Your task to perform on an android device: Open Google Maps Image 0: 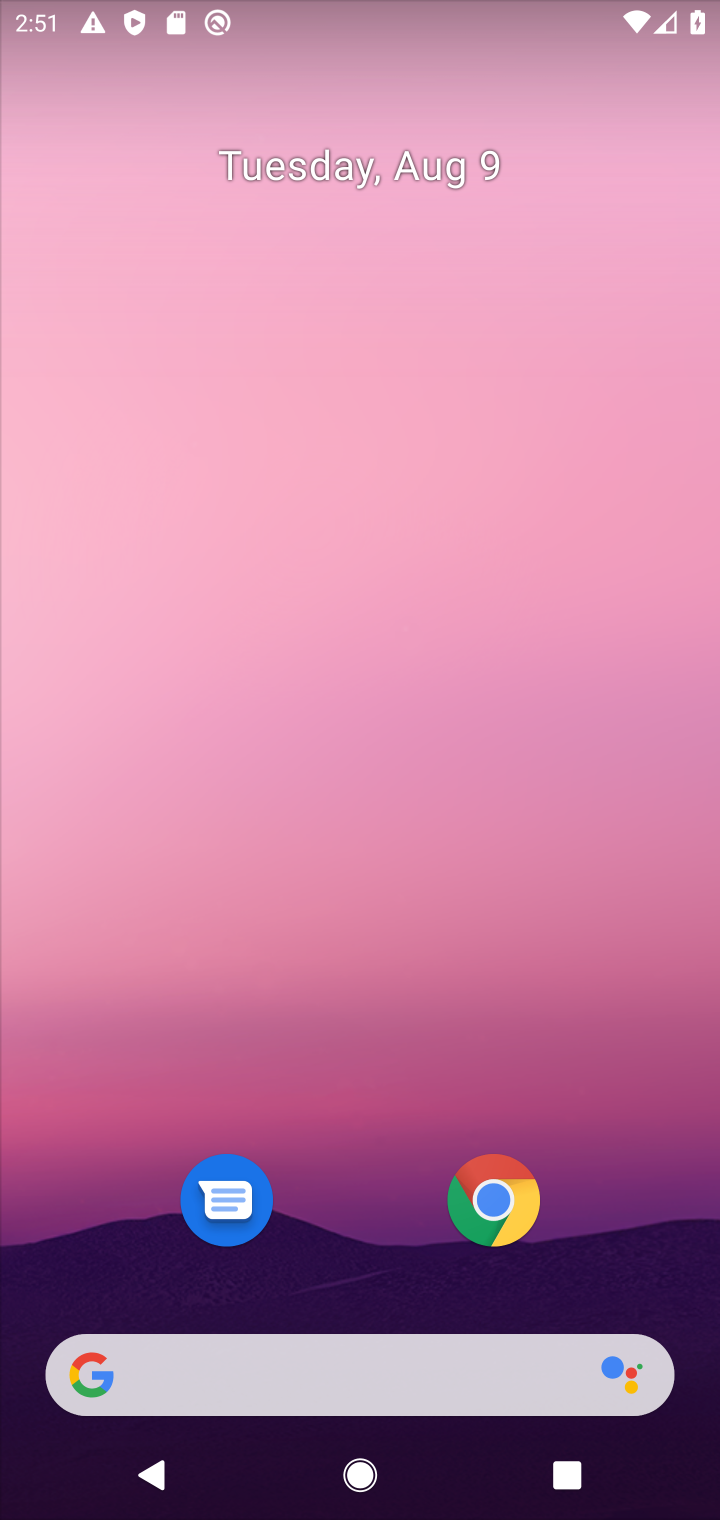
Step 0: drag from (416, 1064) to (450, 0)
Your task to perform on an android device: Open Google Maps Image 1: 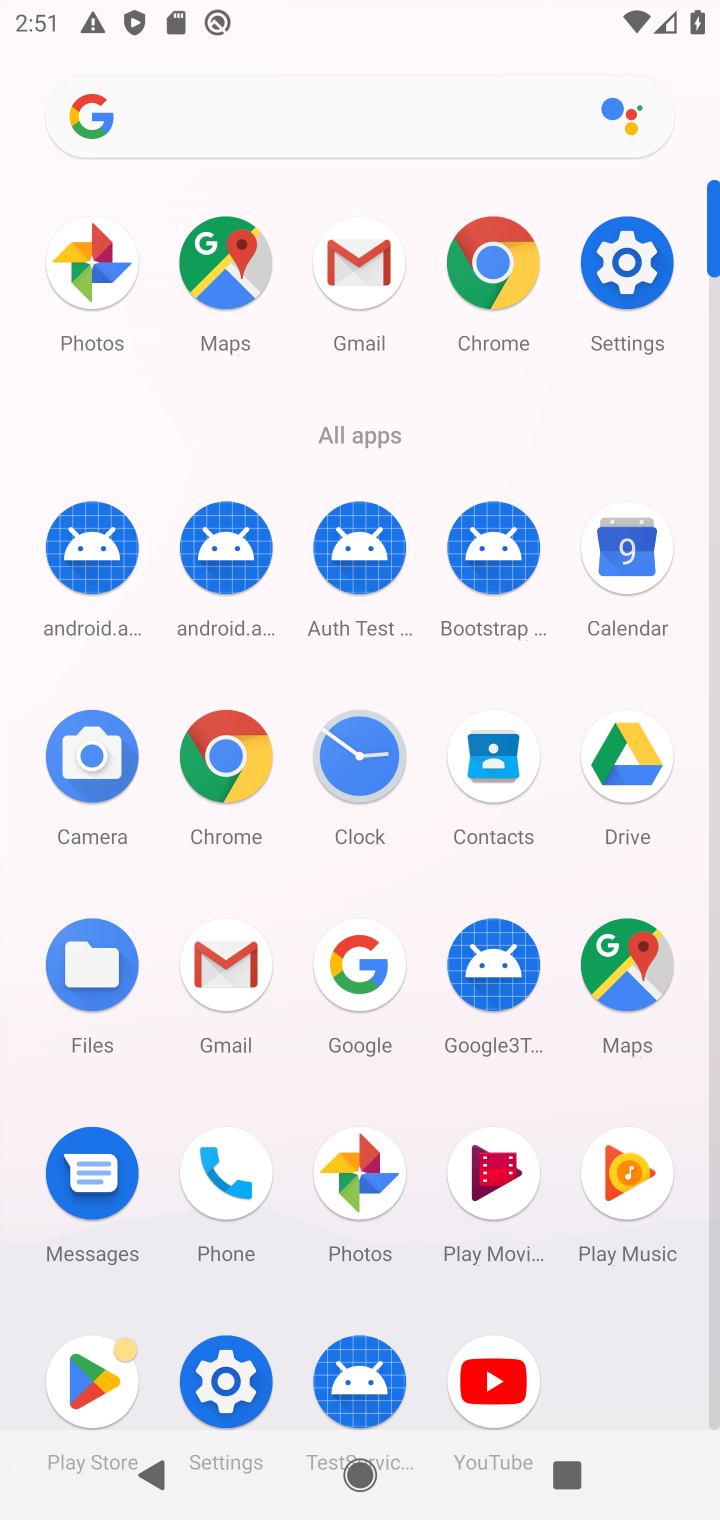
Step 1: click (638, 991)
Your task to perform on an android device: Open Google Maps Image 2: 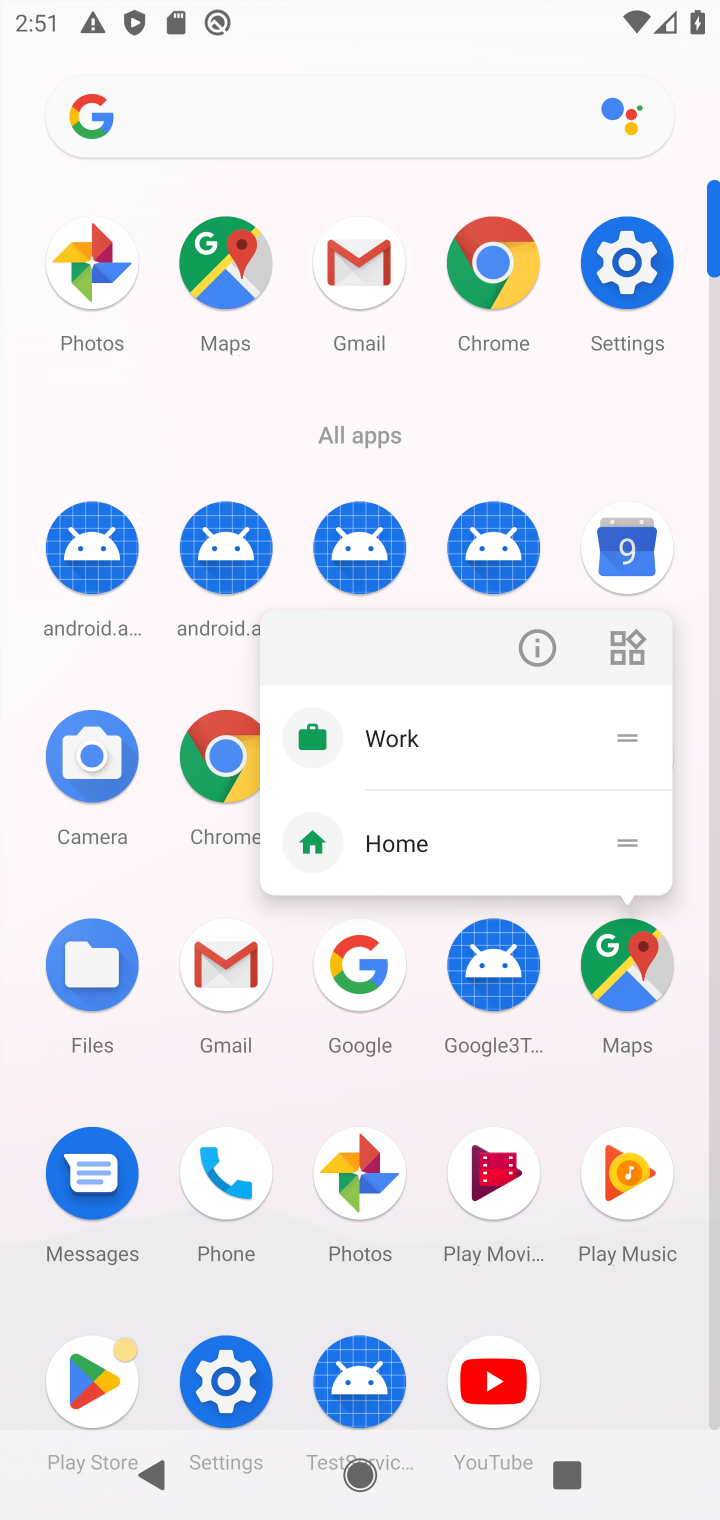
Step 2: click (640, 951)
Your task to perform on an android device: Open Google Maps Image 3: 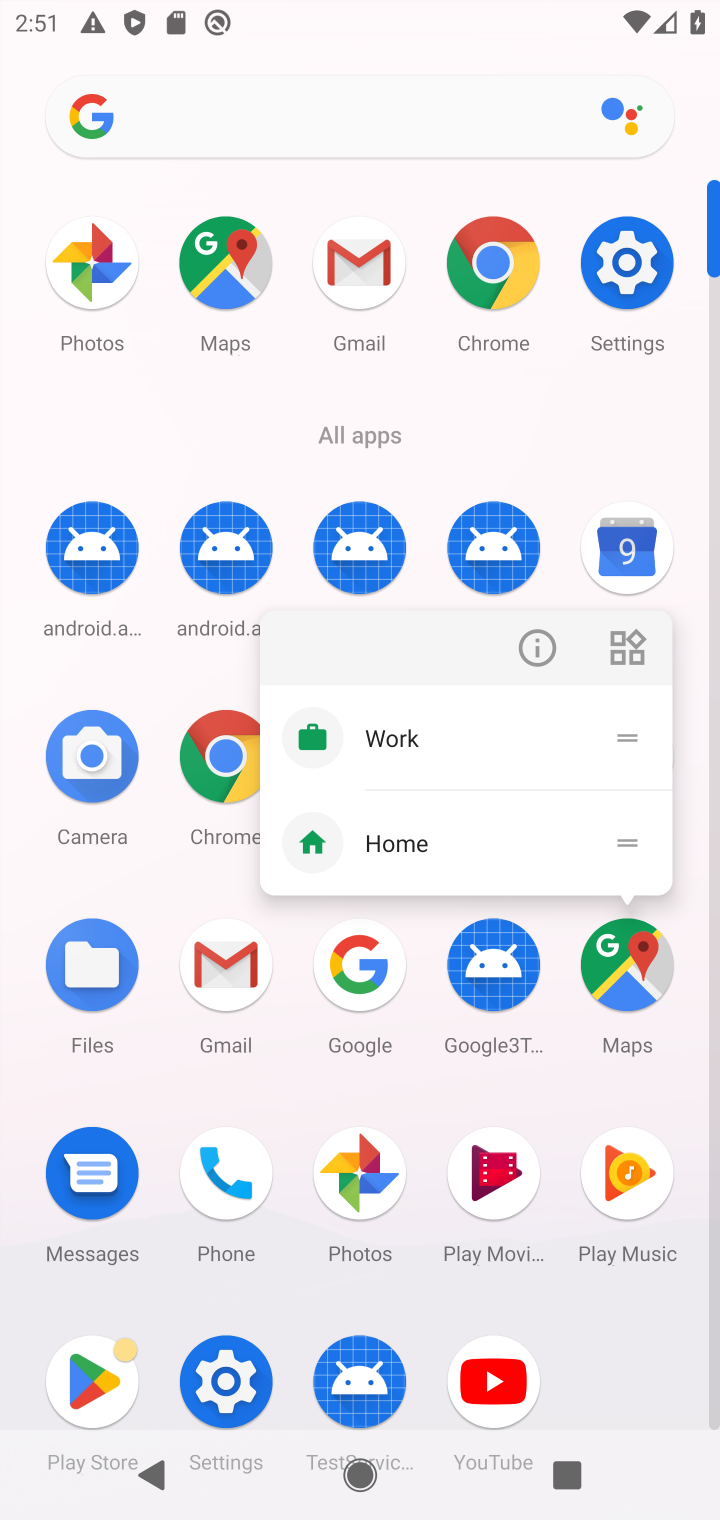
Step 3: click (648, 978)
Your task to perform on an android device: Open Google Maps Image 4: 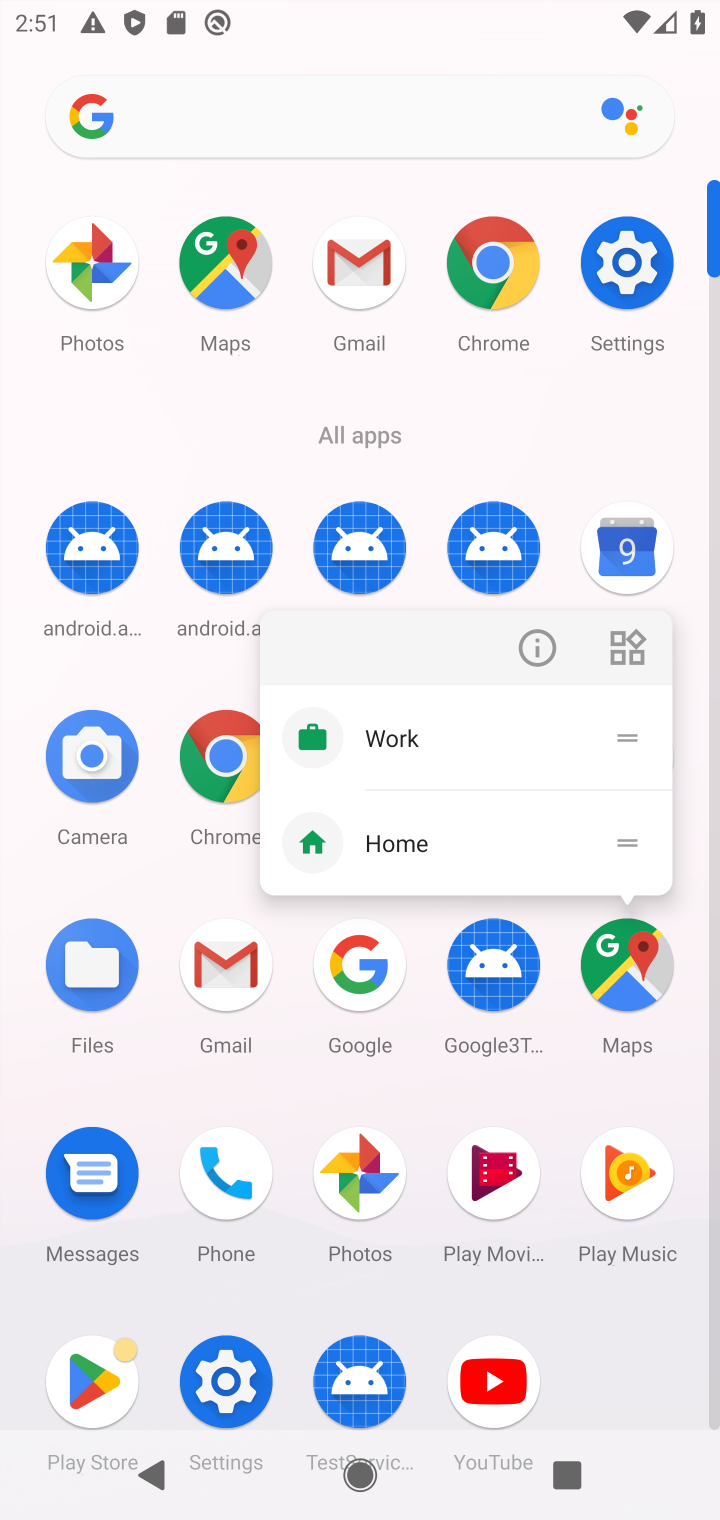
Step 4: click (649, 979)
Your task to perform on an android device: Open Google Maps Image 5: 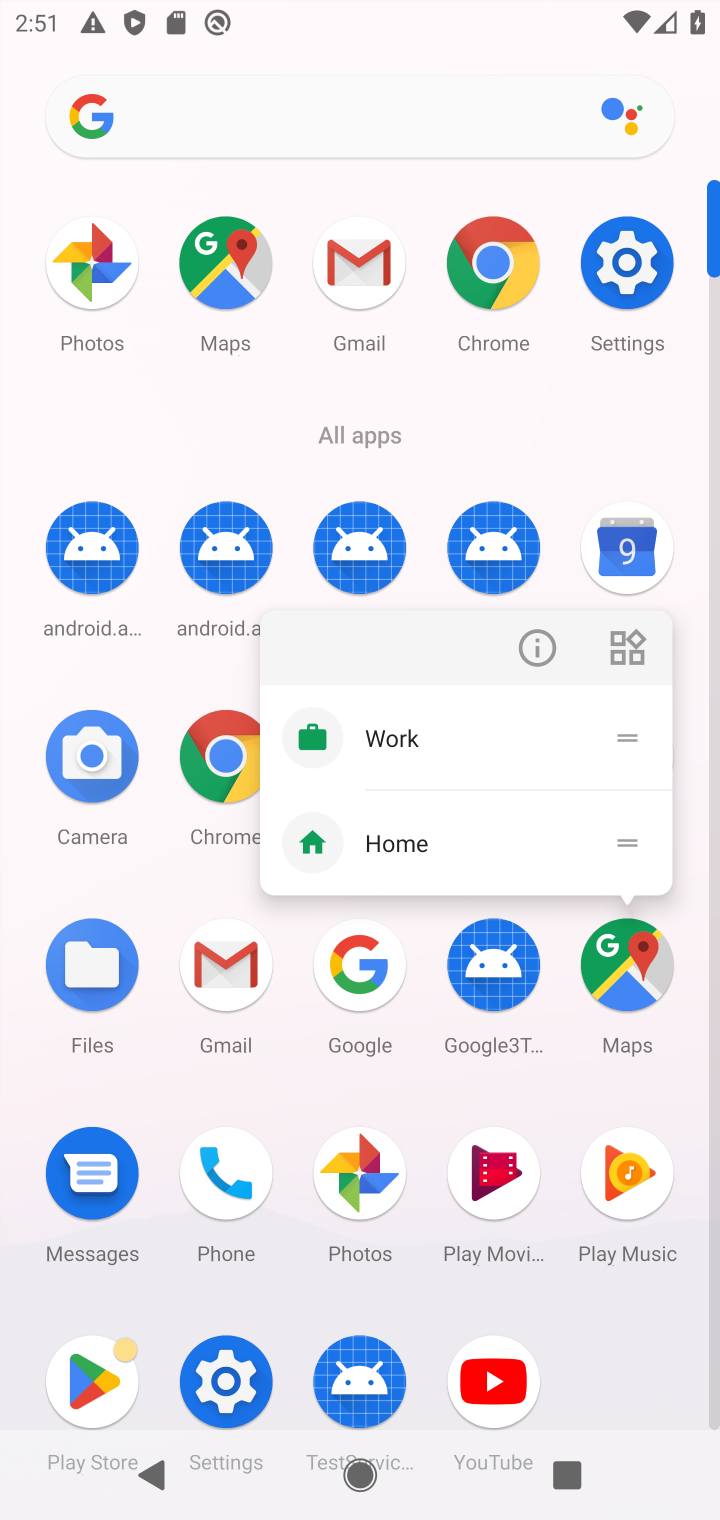
Step 5: click (665, 960)
Your task to perform on an android device: Open Google Maps Image 6: 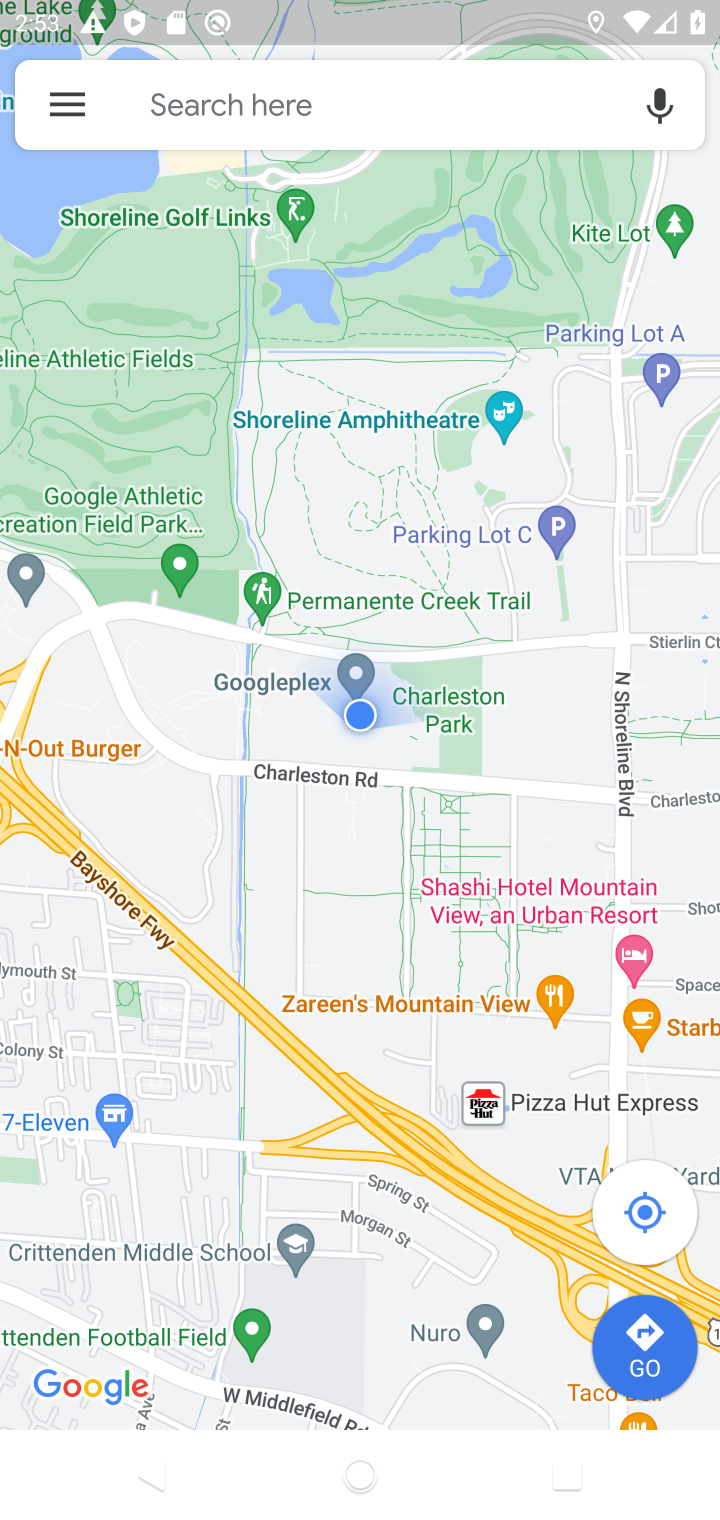
Step 6: task complete